Your task to perform on an android device: turn on notifications settings in the gmail app Image 0: 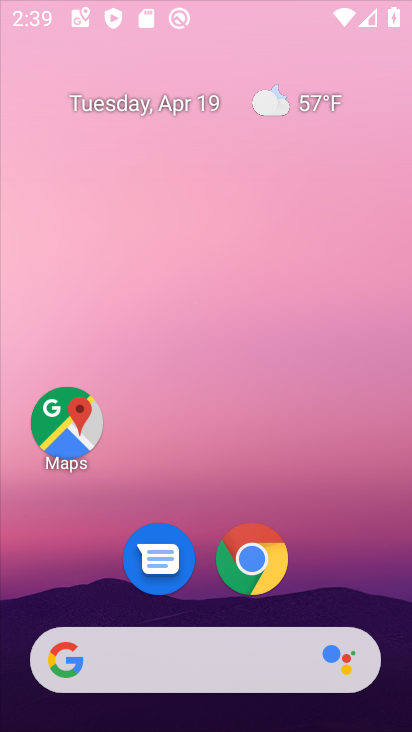
Step 0: click (216, 118)
Your task to perform on an android device: turn on notifications settings in the gmail app Image 1: 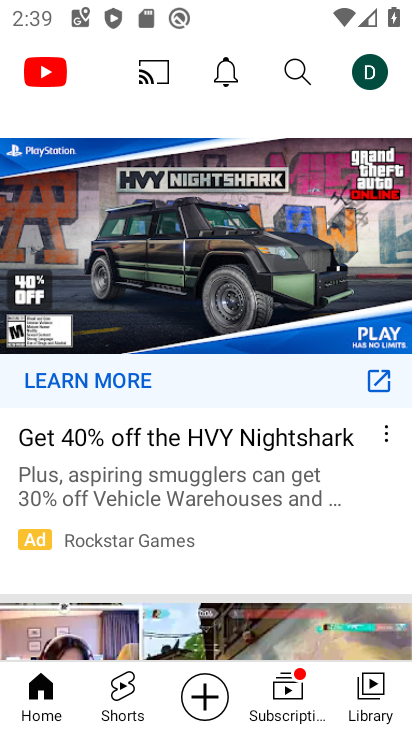
Step 1: press home button
Your task to perform on an android device: turn on notifications settings in the gmail app Image 2: 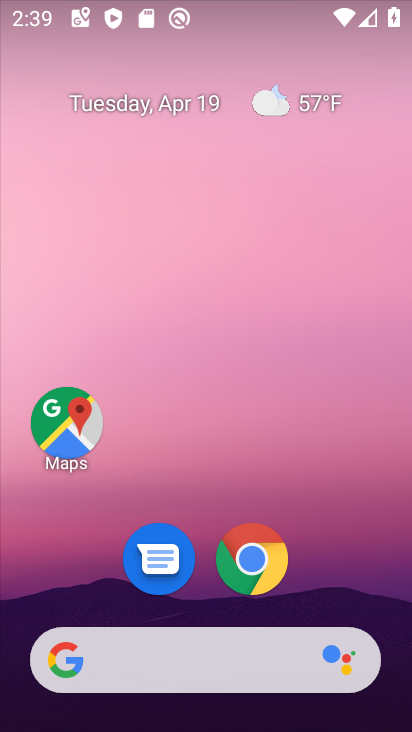
Step 2: drag from (202, 585) to (184, 121)
Your task to perform on an android device: turn on notifications settings in the gmail app Image 3: 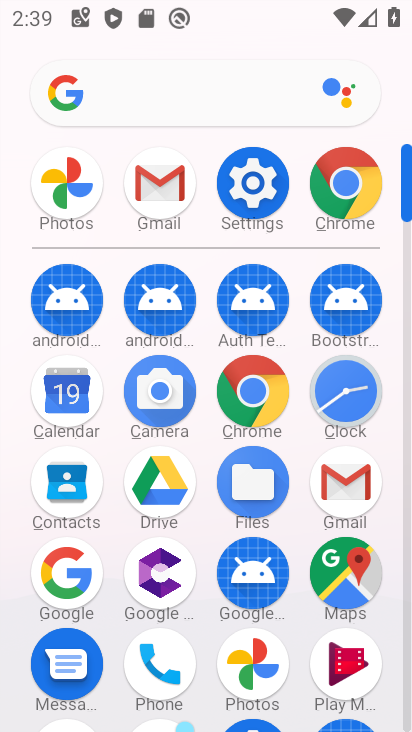
Step 3: click (155, 172)
Your task to perform on an android device: turn on notifications settings in the gmail app Image 4: 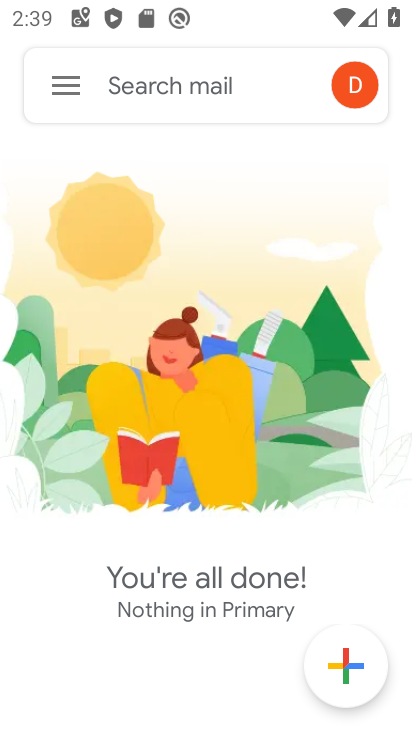
Step 4: click (58, 88)
Your task to perform on an android device: turn on notifications settings in the gmail app Image 5: 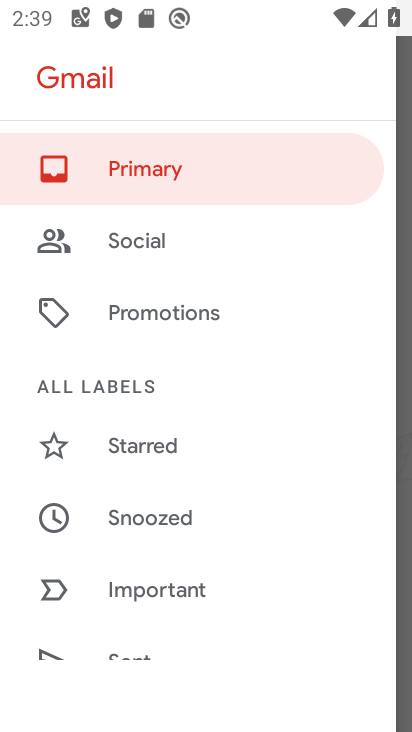
Step 5: drag from (129, 558) to (153, 179)
Your task to perform on an android device: turn on notifications settings in the gmail app Image 6: 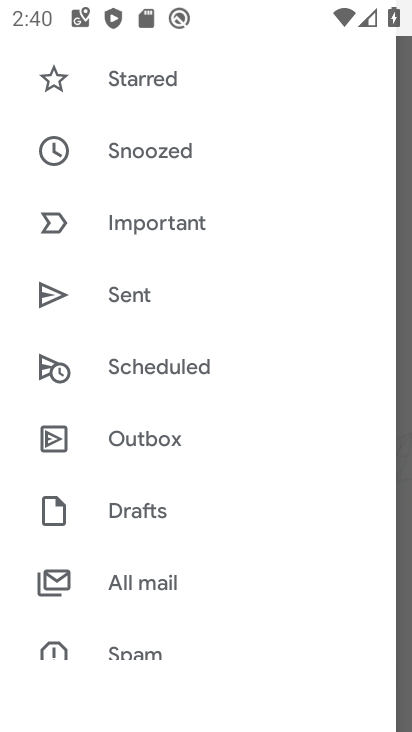
Step 6: drag from (171, 593) to (186, 142)
Your task to perform on an android device: turn on notifications settings in the gmail app Image 7: 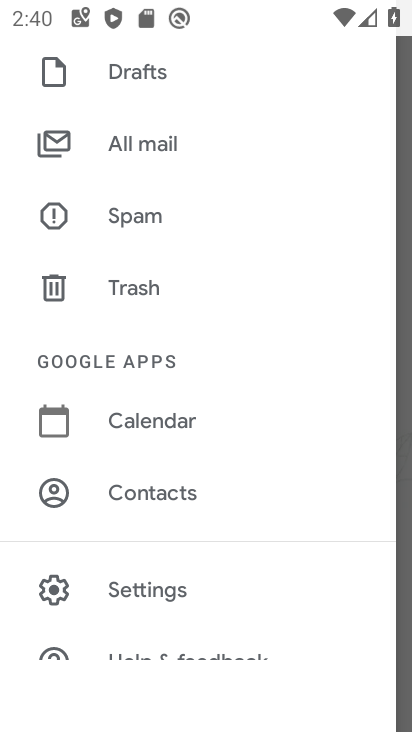
Step 7: click (106, 591)
Your task to perform on an android device: turn on notifications settings in the gmail app Image 8: 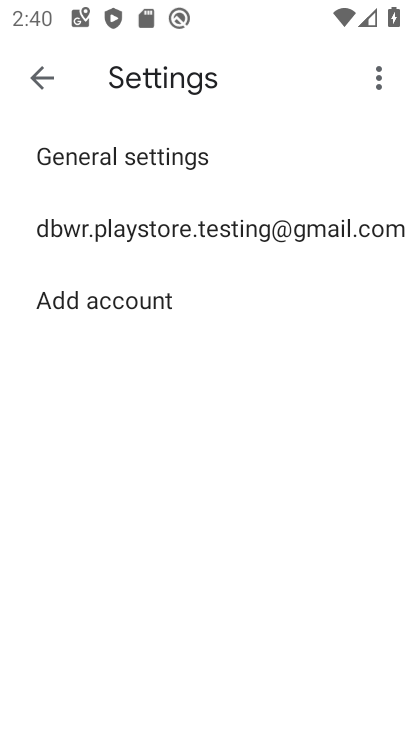
Step 8: click (217, 148)
Your task to perform on an android device: turn on notifications settings in the gmail app Image 9: 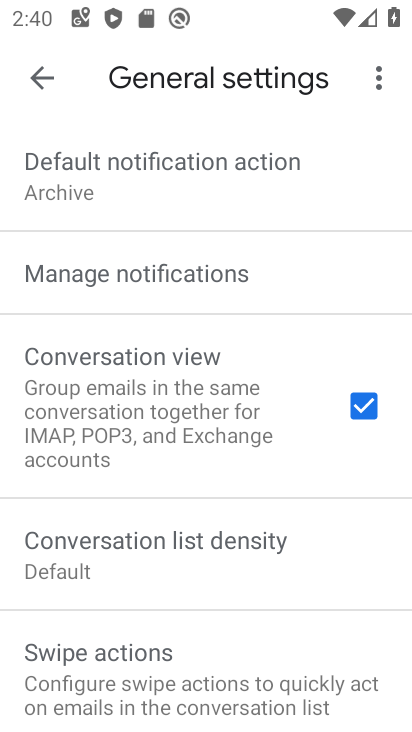
Step 9: click (183, 287)
Your task to perform on an android device: turn on notifications settings in the gmail app Image 10: 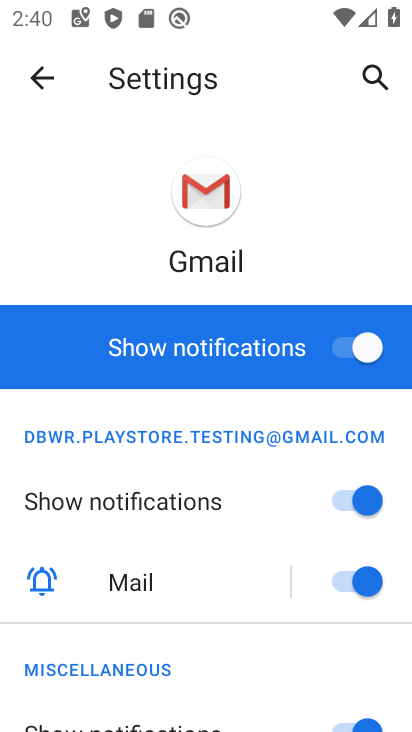
Step 10: task complete